Your task to perform on an android device: open device folders in google photos Image 0: 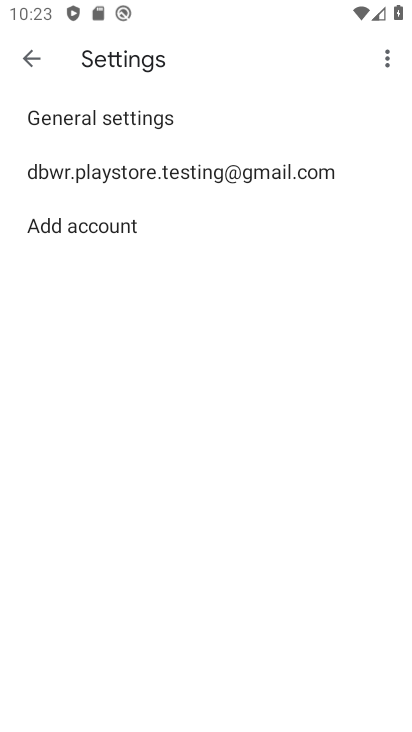
Step 0: press home button
Your task to perform on an android device: open device folders in google photos Image 1: 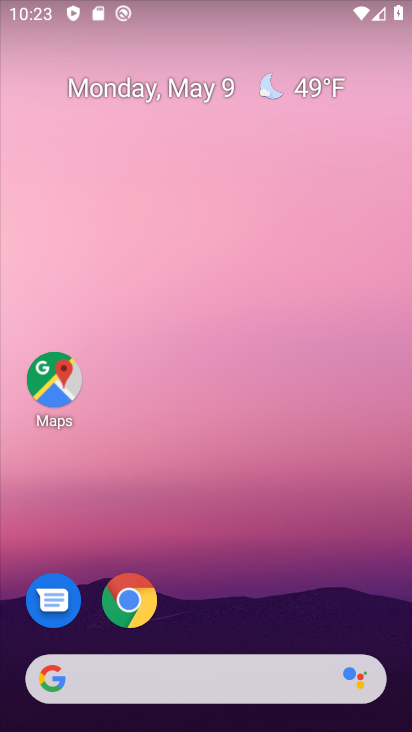
Step 1: drag from (338, 607) to (284, 189)
Your task to perform on an android device: open device folders in google photos Image 2: 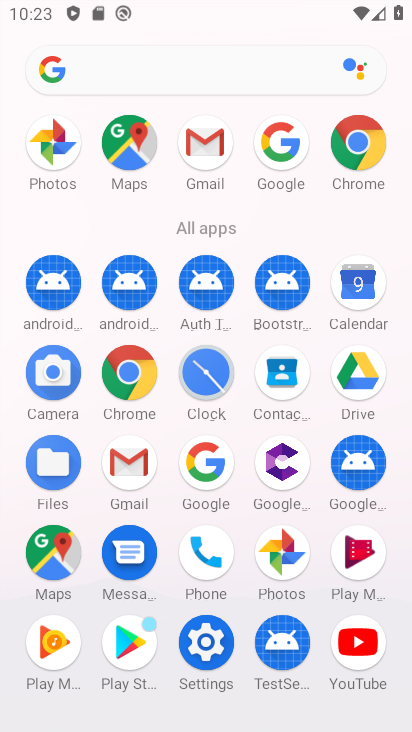
Step 2: click (288, 554)
Your task to perform on an android device: open device folders in google photos Image 3: 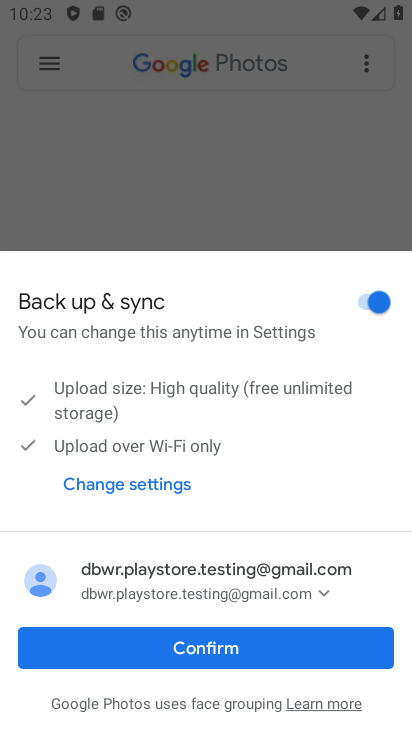
Step 3: click (266, 651)
Your task to perform on an android device: open device folders in google photos Image 4: 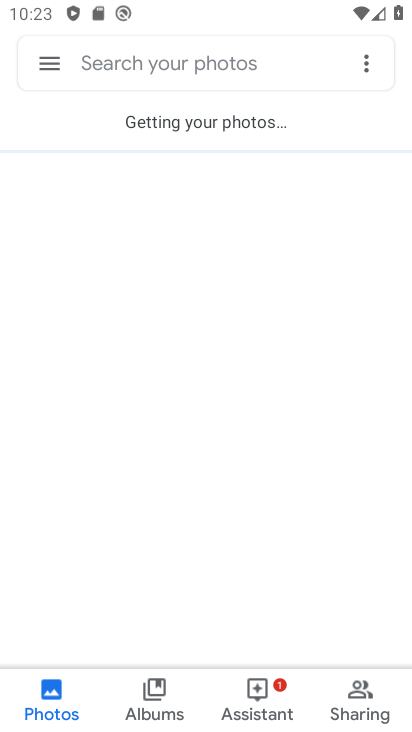
Step 4: click (64, 56)
Your task to perform on an android device: open device folders in google photos Image 5: 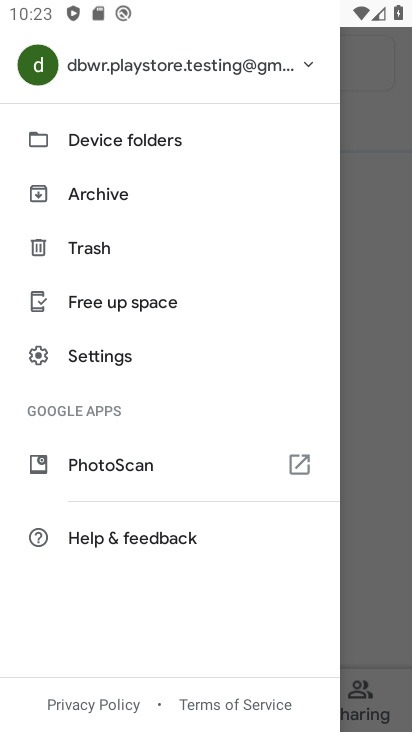
Step 5: click (140, 133)
Your task to perform on an android device: open device folders in google photos Image 6: 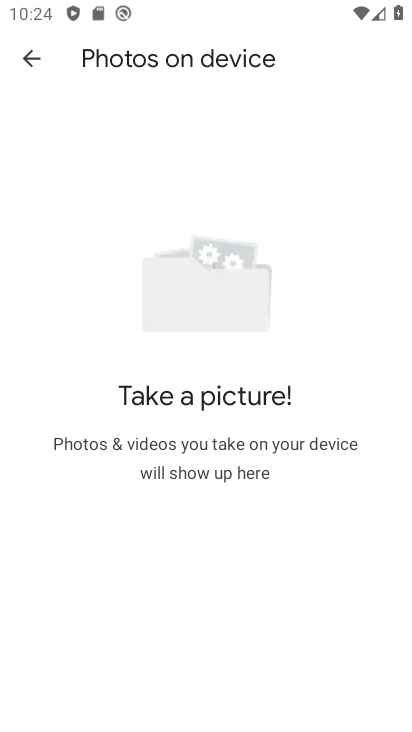
Step 6: task complete